Your task to perform on an android device: Search for seafood restaurants on Google Maps Image 0: 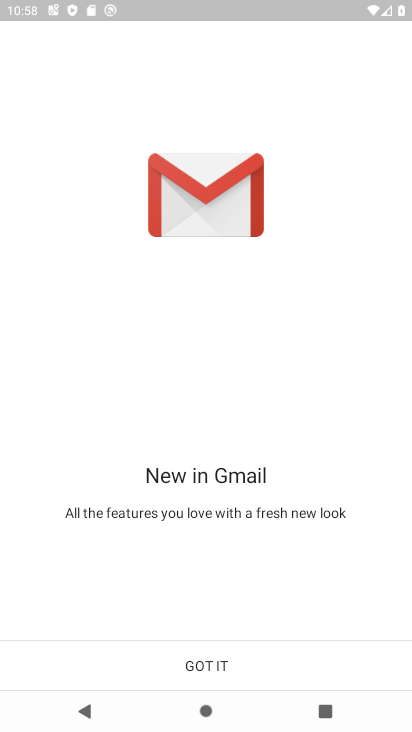
Step 0: press home button
Your task to perform on an android device: Search for seafood restaurants on Google Maps Image 1: 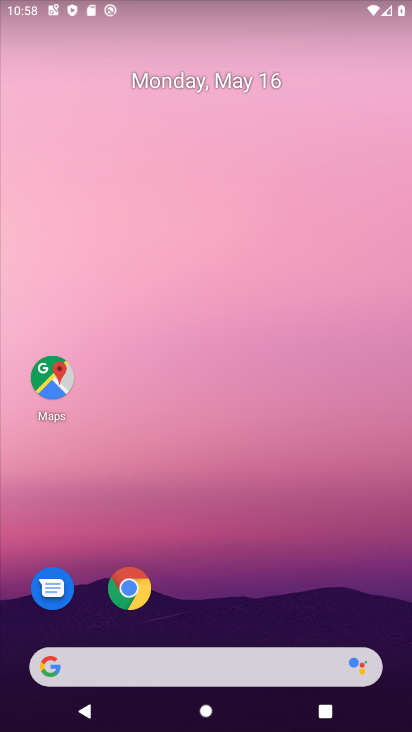
Step 1: drag from (336, 611) to (354, 64)
Your task to perform on an android device: Search for seafood restaurants on Google Maps Image 2: 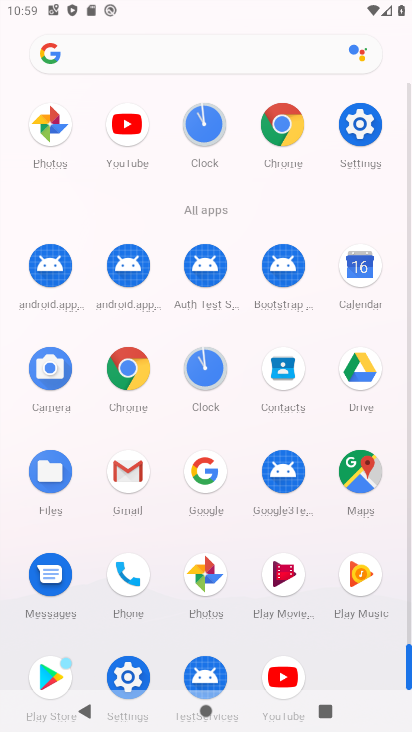
Step 2: click (356, 481)
Your task to perform on an android device: Search for seafood restaurants on Google Maps Image 3: 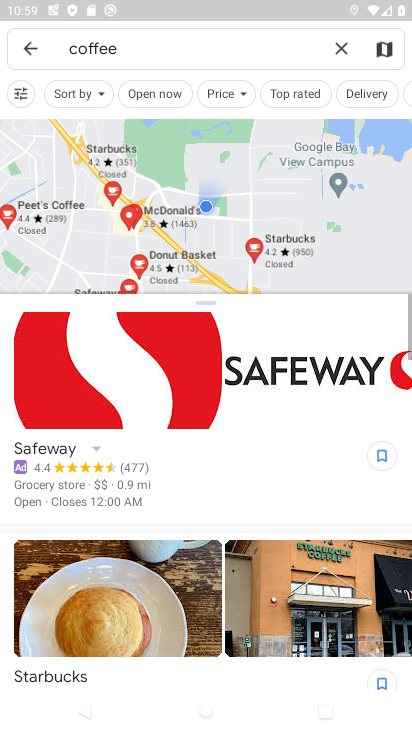
Step 3: click (341, 51)
Your task to perform on an android device: Search for seafood restaurants on Google Maps Image 4: 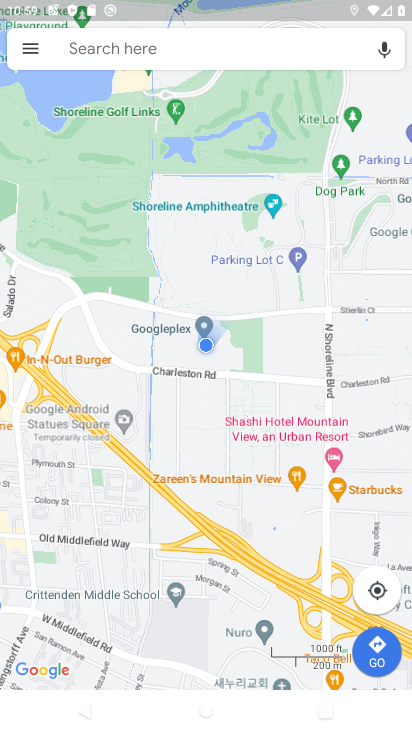
Step 4: click (182, 47)
Your task to perform on an android device: Search for seafood restaurants on Google Maps Image 5: 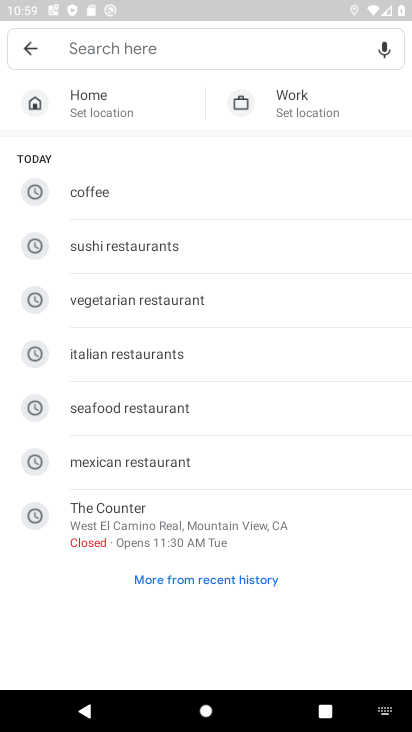
Step 5: type "seafood restaurants"
Your task to perform on an android device: Search for seafood restaurants on Google Maps Image 6: 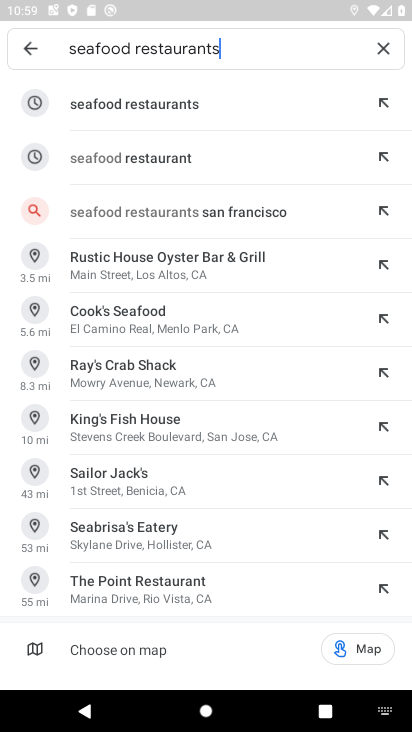
Step 6: click (231, 104)
Your task to perform on an android device: Search for seafood restaurants on Google Maps Image 7: 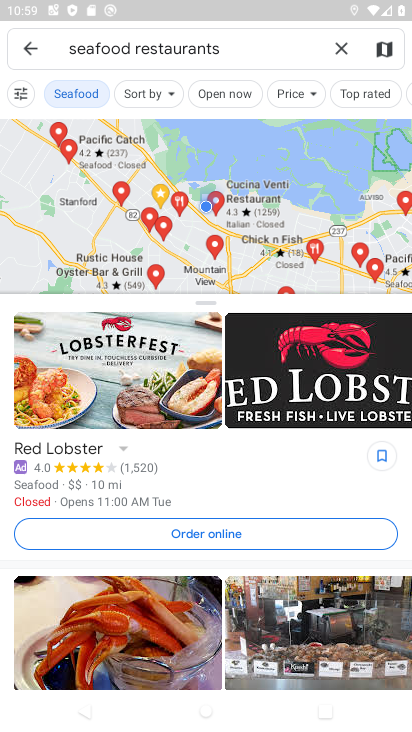
Step 7: task complete